Your task to perform on an android device: turn off improve location accuracy Image 0: 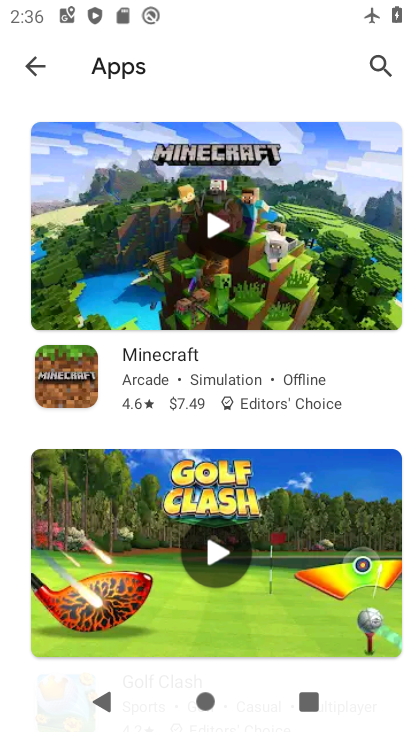
Step 0: press home button
Your task to perform on an android device: turn off improve location accuracy Image 1: 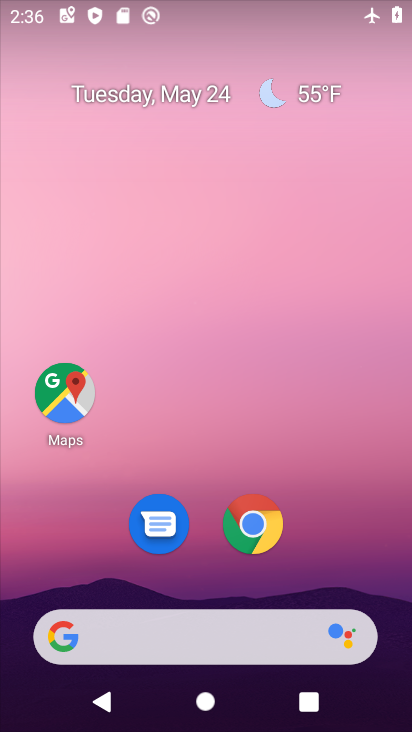
Step 1: drag from (325, 527) to (345, 71)
Your task to perform on an android device: turn off improve location accuracy Image 2: 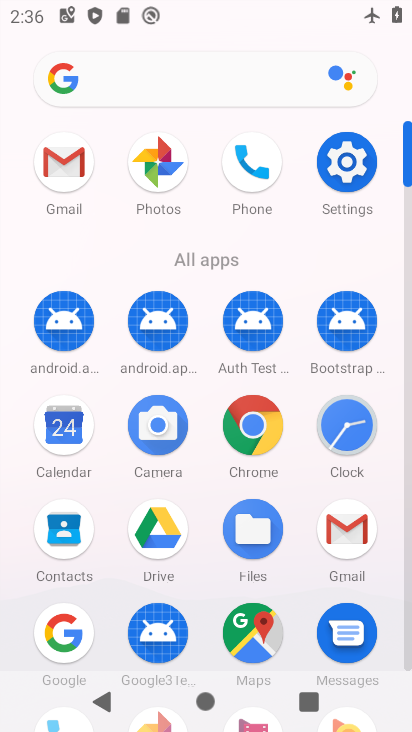
Step 2: click (359, 161)
Your task to perform on an android device: turn off improve location accuracy Image 3: 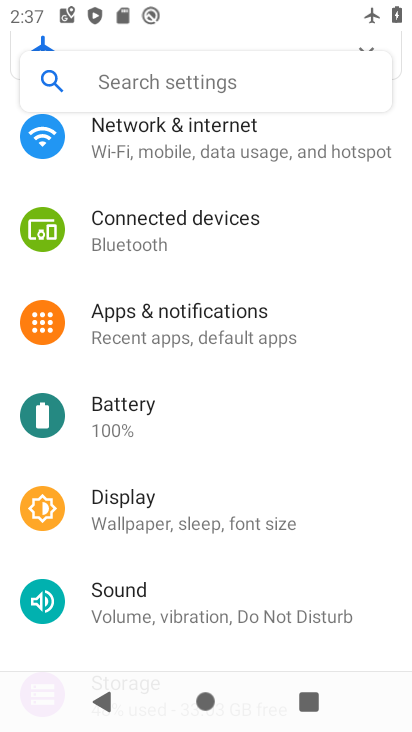
Step 3: drag from (236, 531) to (243, 140)
Your task to perform on an android device: turn off improve location accuracy Image 4: 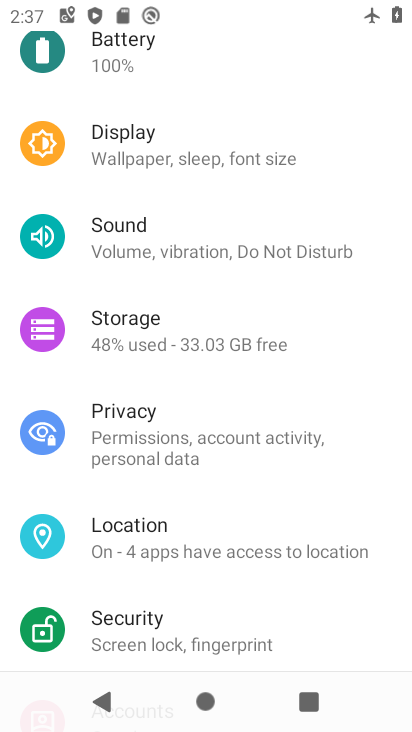
Step 4: click (237, 529)
Your task to perform on an android device: turn off improve location accuracy Image 5: 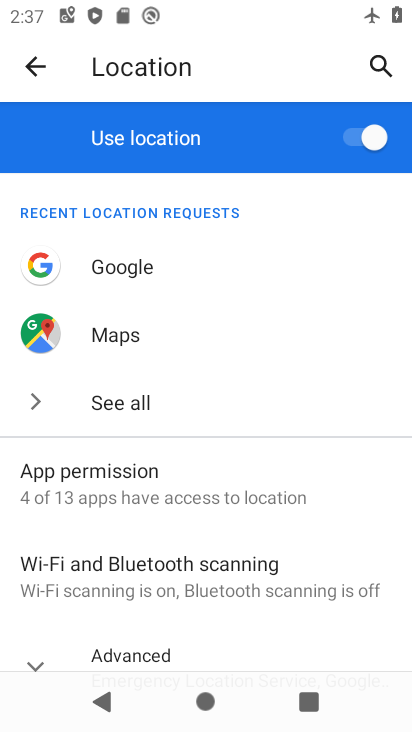
Step 5: drag from (241, 569) to (236, 325)
Your task to perform on an android device: turn off improve location accuracy Image 6: 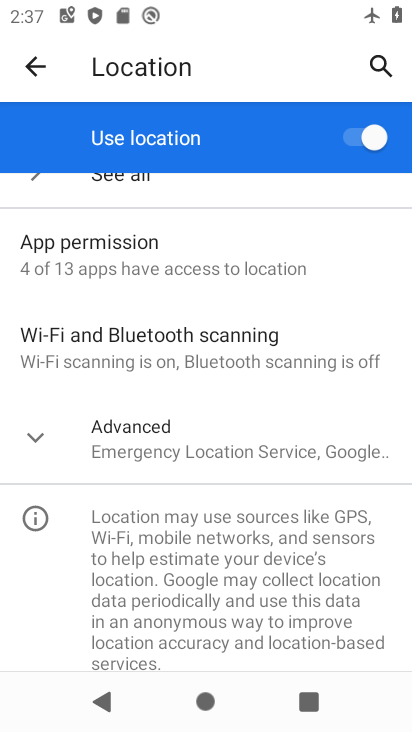
Step 6: click (37, 431)
Your task to perform on an android device: turn off improve location accuracy Image 7: 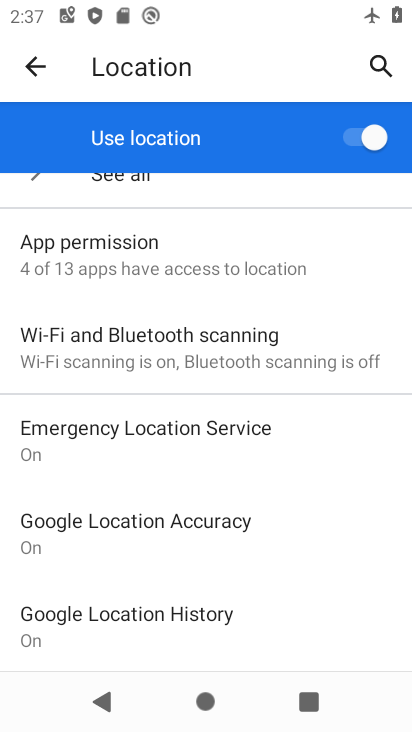
Step 7: click (119, 527)
Your task to perform on an android device: turn off improve location accuracy Image 8: 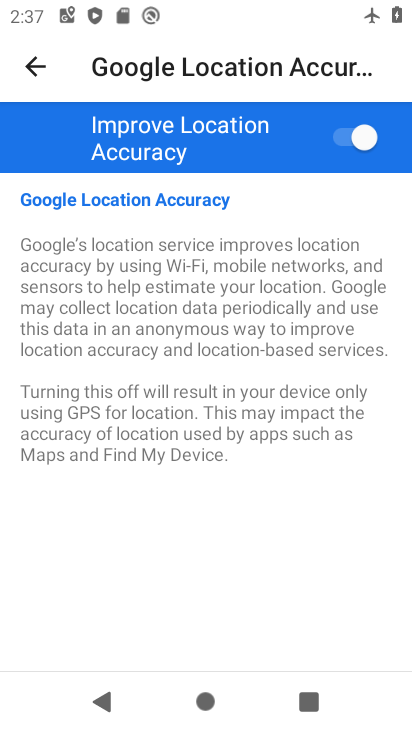
Step 8: click (346, 139)
Your task to perform on an android device: turn off improve location accuracy Image 9: 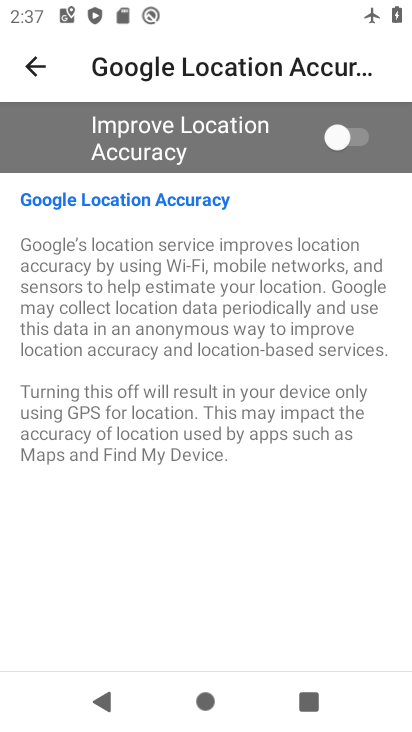
Step 9: task complete